Your task to perform on an android device: Open Google Chrome and open the bookmarks view Image 0: 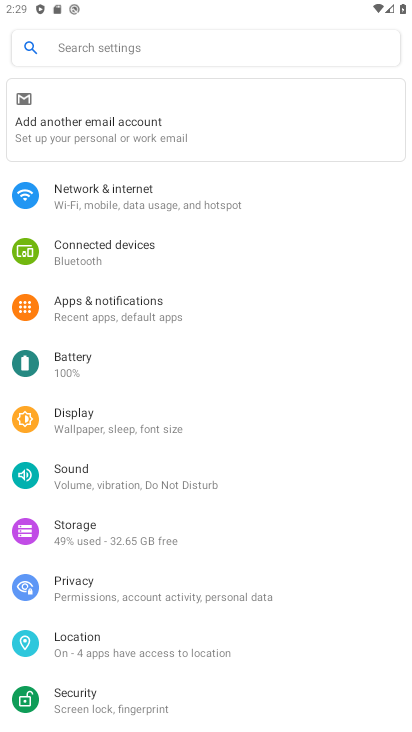
Step 0: press home button
Your task to perform on an android device: Open Google Chrome and open the bookmarks view Image 1: 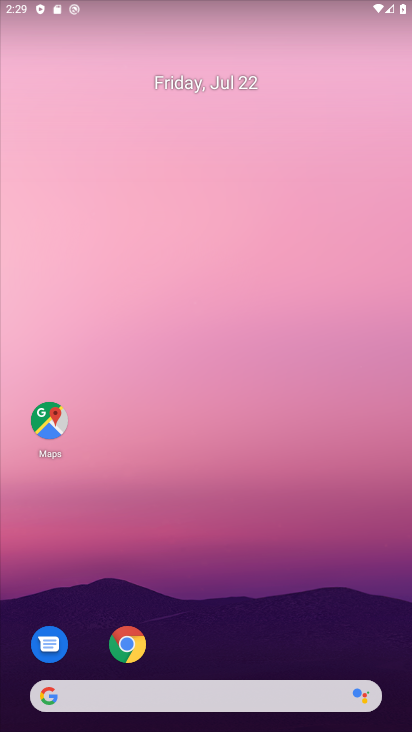
Step 1: drag from (254, 652) to (271, 202)
Your task to perform on an android device: Open Google Chrome and open the bookmarks view Image 2: 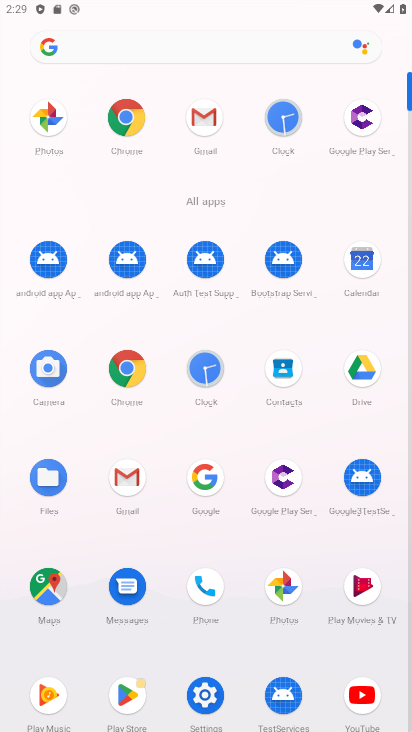
Step 2: click (130, 120)
Your task to perform on an android device: Open Google Chrome and open the bookmarks view Image 3: 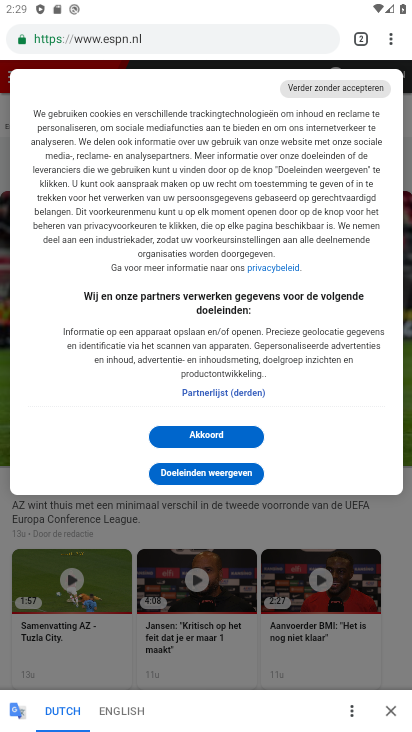
Step 3: task complete